Your task to perform on an android device: open the mobile data screen to see how much data has been used Image 0: 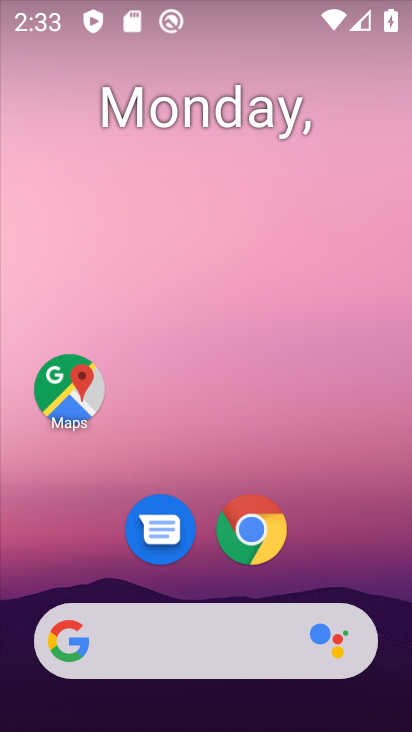
Step 0: press home button
Your task to perform on an android device: open the mobile data screen to see how much data has been used Image 1: 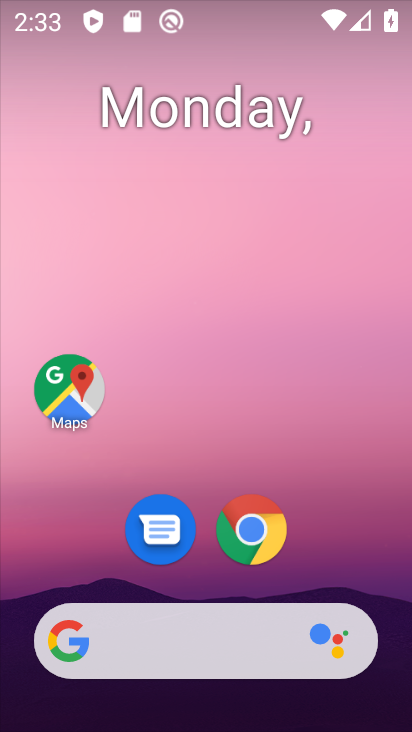
Step 1: drag from (379, 540) to (359, 163)
Your task to perform on an android device: open the mobile data screen to see how much data has been used Image 2: 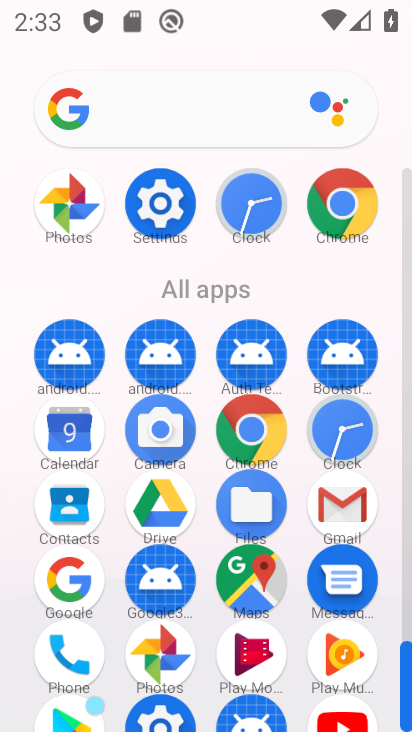
Step 2: click (144, 207)
Your task to perform on an android device: open the mobile data screen to see how much data has been used Image 3: 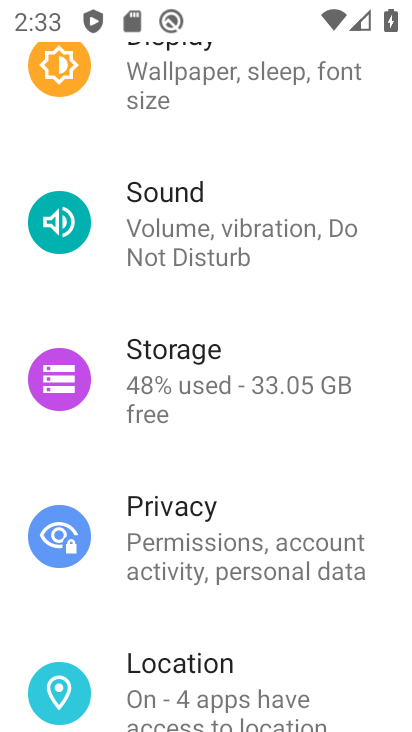
Step 3: drag from (263, 165) to (298, 594)
Your task to perform on an android device: open the mobile data screen to see how much data has been used Image 4: 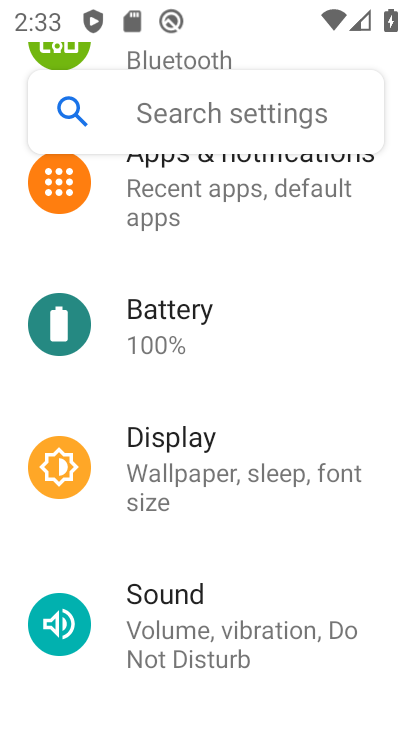
Step 4: drag from (220, 281) to (264, 599)
Your task to perform on an android device: open the mobile data screen to see how much data has been used Image 5: 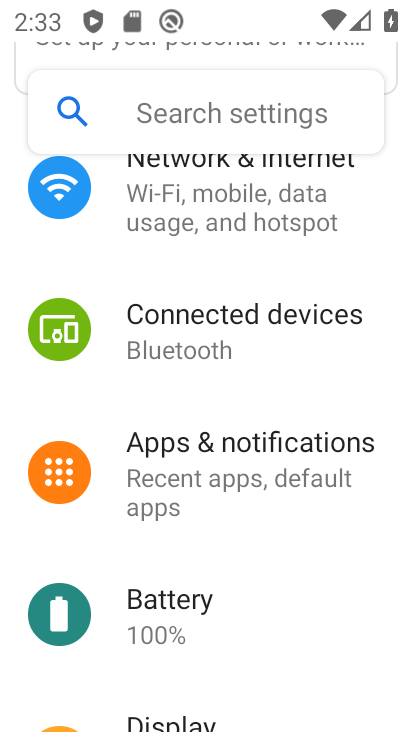
Step 5: click (236, 244)
Your task to perform on an android device: open the mobile data screen to see how much data has been used Image 6: 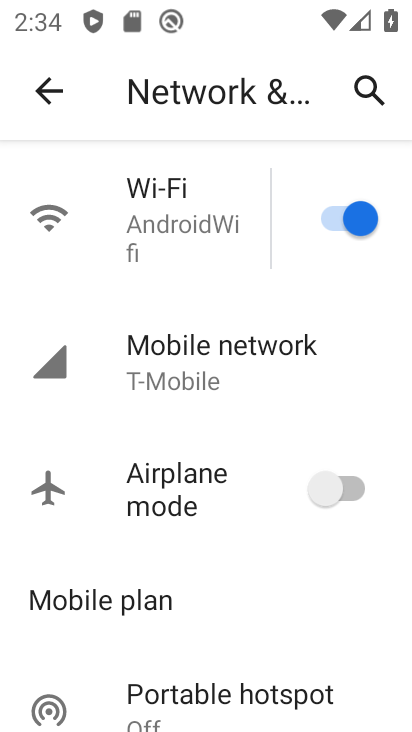
Step 6: click (155, 380)
Your task to perform on an android device: open the mobile data screen to see how much data has been used Image 7: 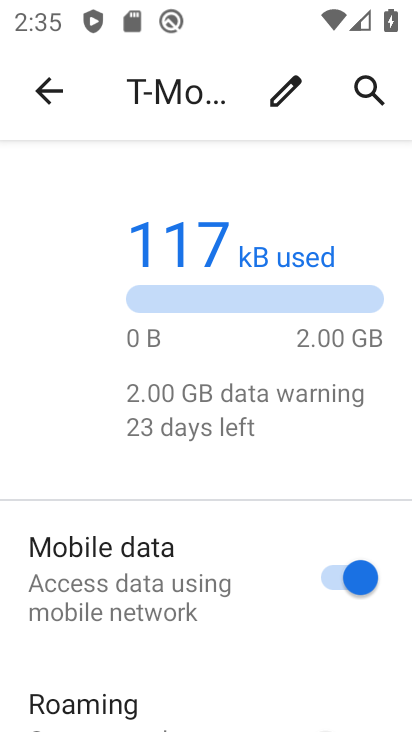
Step 7: task complete